Your task to perform on an android device: change text size in settings app Image 0: 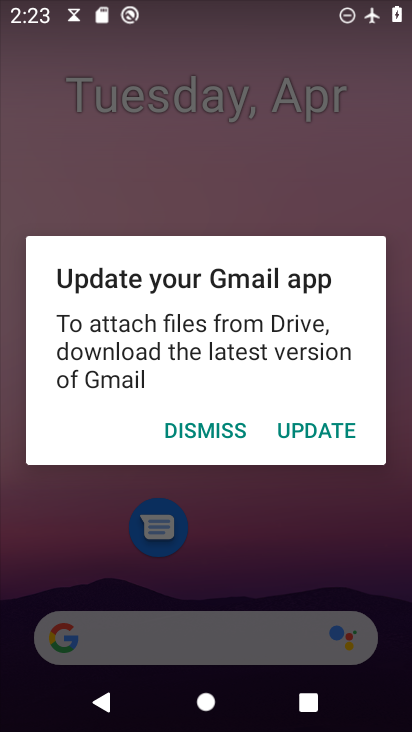
Step 0: press home button
Your task to perform on an android device: change text size in settings app Image 1: 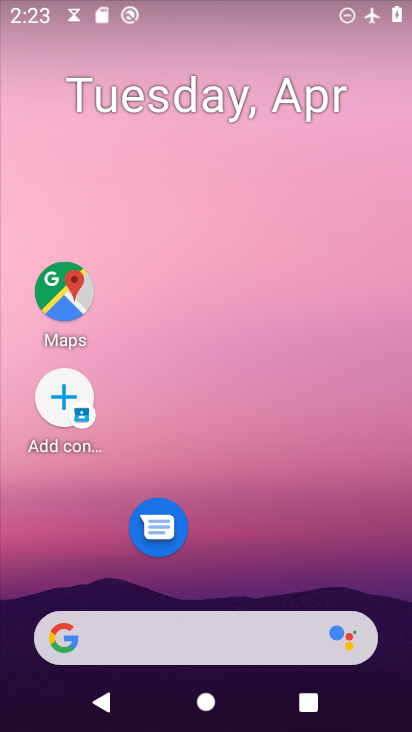
Step 1: drag from (247, 573) to (224, 80)
Your task to perform on an android device: change text size in settings app Image 2: 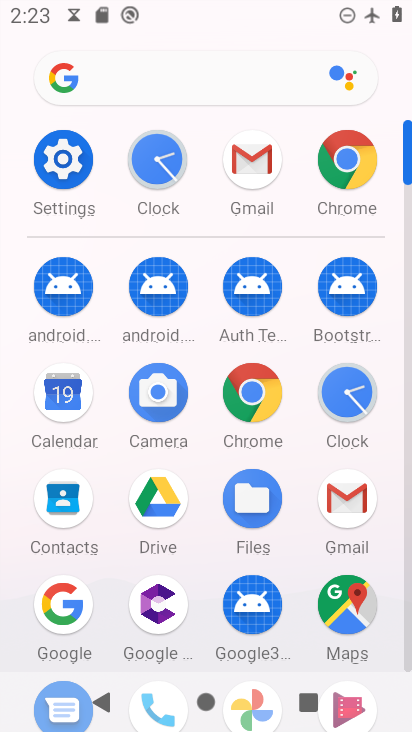
Step 2: click (64, 161)
Your task to perform on an android device: change text size in settings app Image 3: 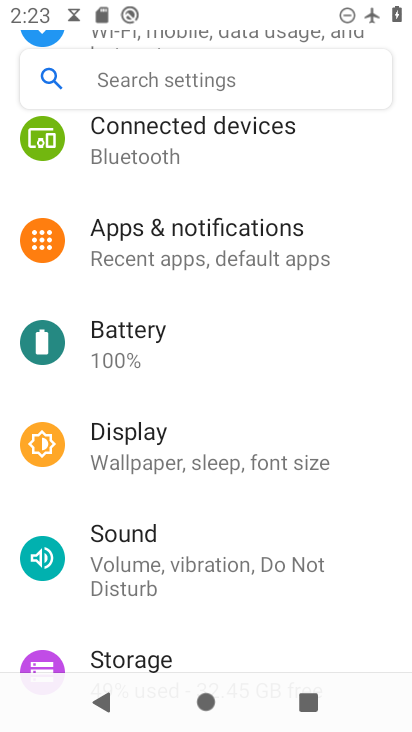
Step 3: drag from (213, 391) to (208, 327)
Your task to perform on an android device: change text size in settings app Image 4: 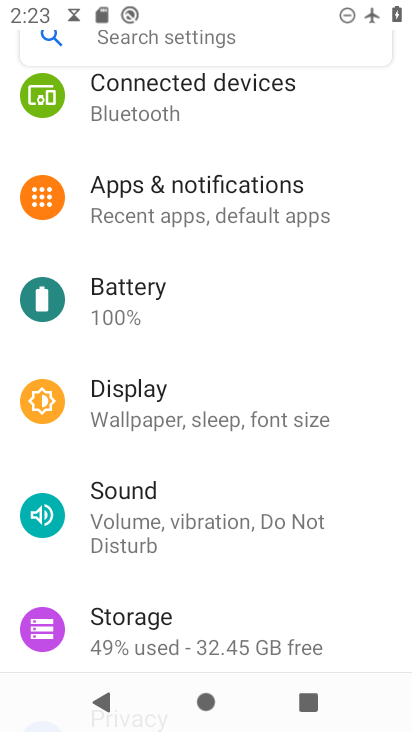
Step 4: drag from (206, 443) to (201, 346)
Your task to perform on an android device: change text size in settings app Image 5: 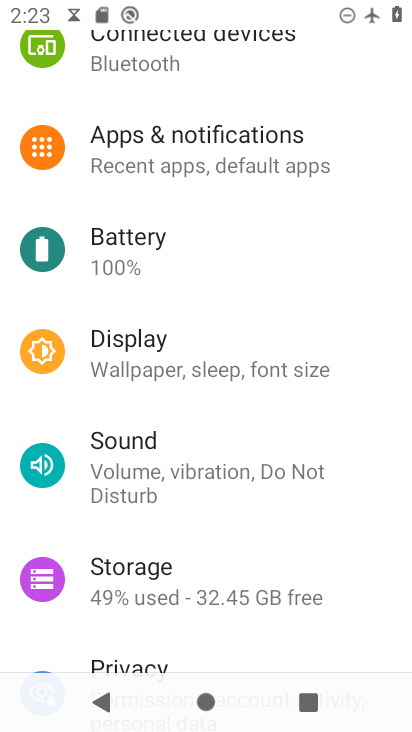
Step 5: drag from (196, 506) to (208, 403)
Your task to perform on an android device: change text size in settings app Image 6: 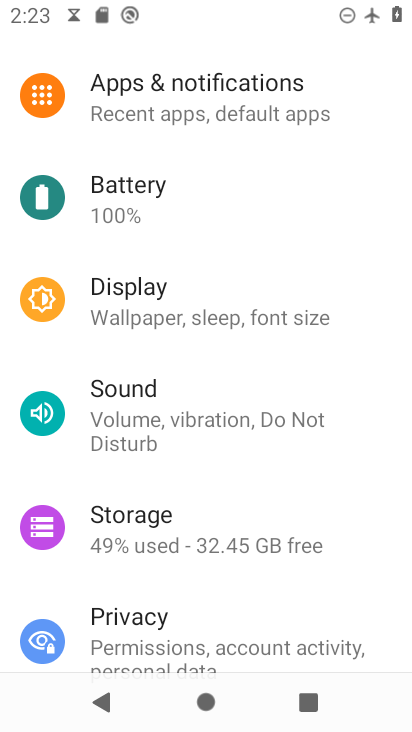
Step 6: drag from (202, 479) to (206, 387)
Your task to perform on an android device: change text size in settings app Image 7: 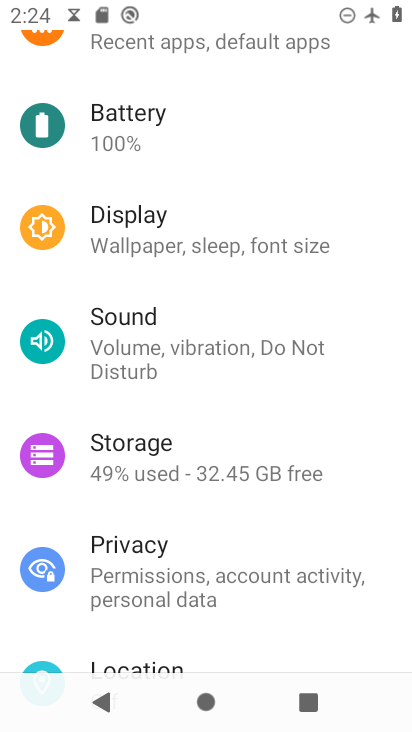
Step 7: drag from (204, 500) to (214, 420)
Your task to perform on an android device: change text size in settings app Image 8: 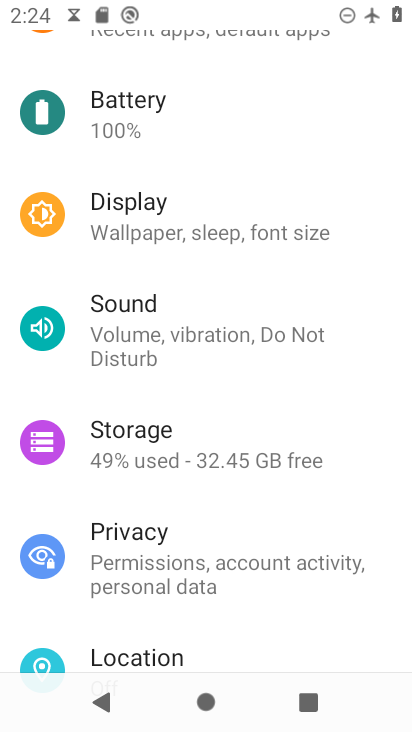
Step 8: drag from (231, 586) to (271, 498)
Your task to perform on an android device: change text size in settings app Image 9: 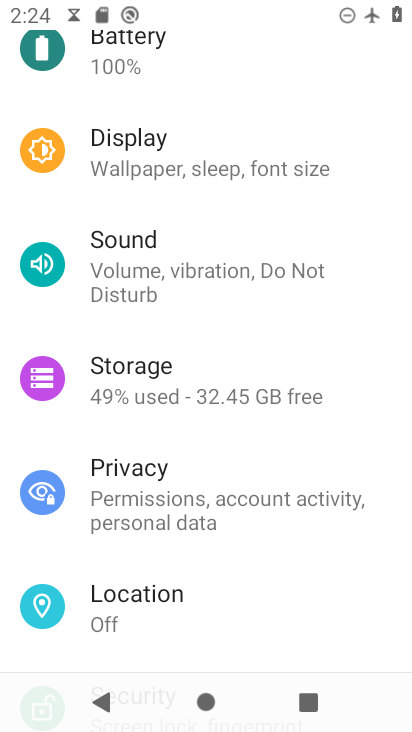
Step 9: drag from (248, 570) to (249, 460)
Your task to perform on an android device: change text size in settings app Image 10: 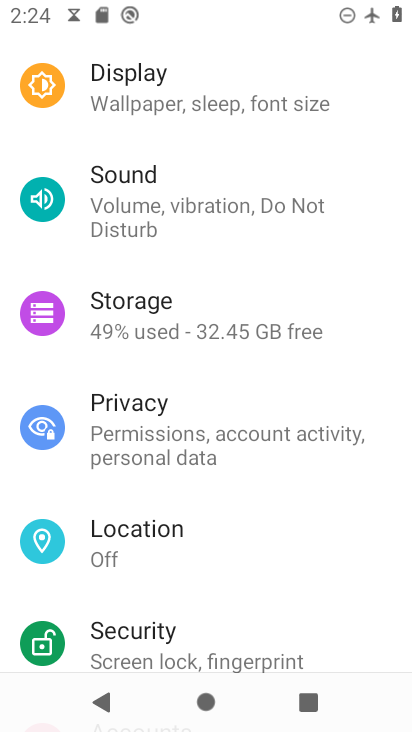
Step 10: drag from (242, 577) to (226, 460)
Your task to perform on an android device: change text size in settings app Image 11: 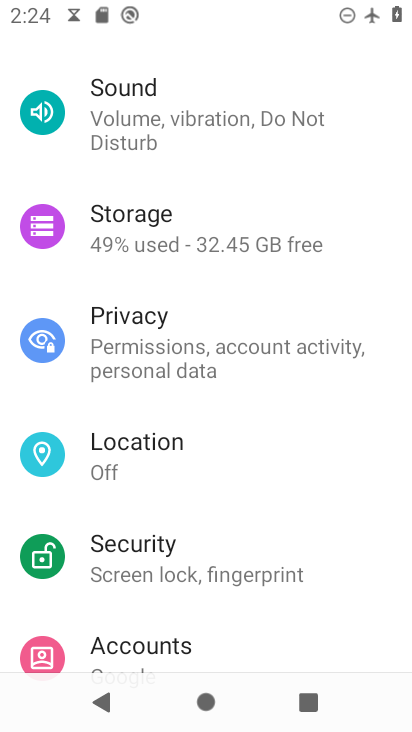
Step 11: drag from (227, 547) to (234, 467)
Your task to perform on an android device: change text size in settings app Image 12: 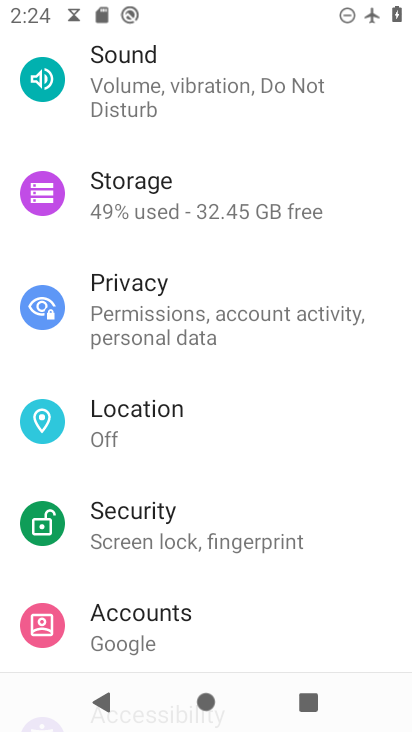
Step 12: drag from (244, 606) to (257, 475)
Your task to perform on an android device: change text size in settings app Image 13: 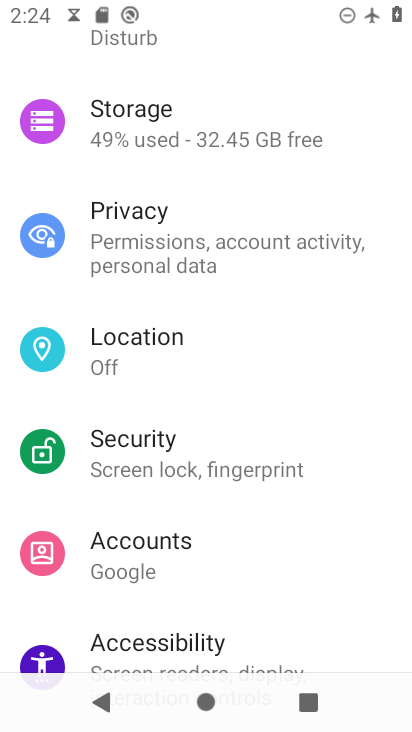
Step 13: drag from (241, 568) to (266, 439)
Your task to perform on an android device: change text size in settings app Image 14: 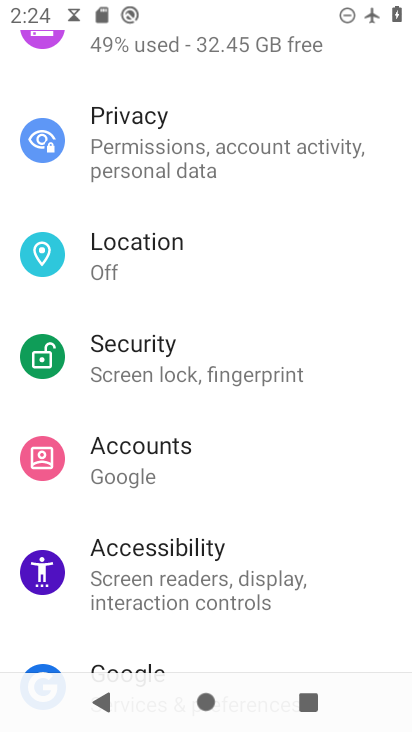
Step 14: drag from (276, 526) to (259, 426)
Your task to perform on an android device: change text size in settings app Image 15: 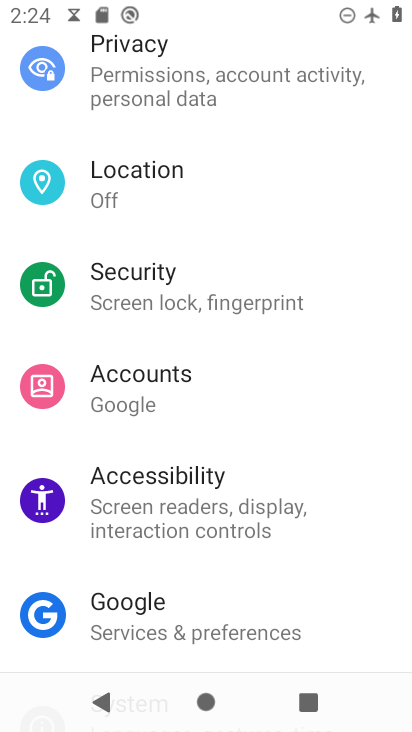
Step 15: click (209, 478)
Your task to perform on an android device: change text size in settings app Image 16: 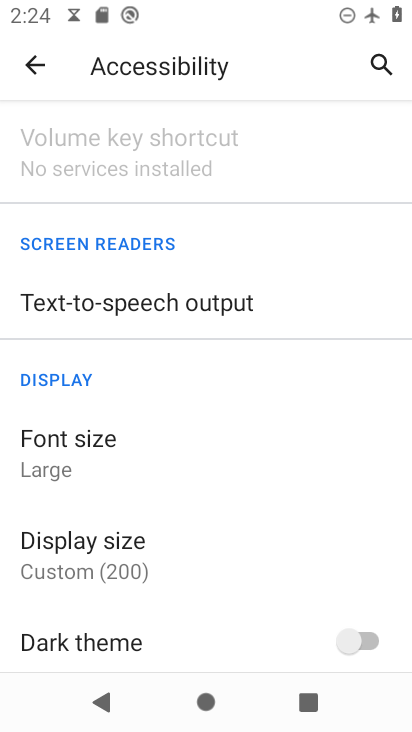
Step 16: click (75, 444)
Your task to perform on an android device: change text size in settings app Image 17: 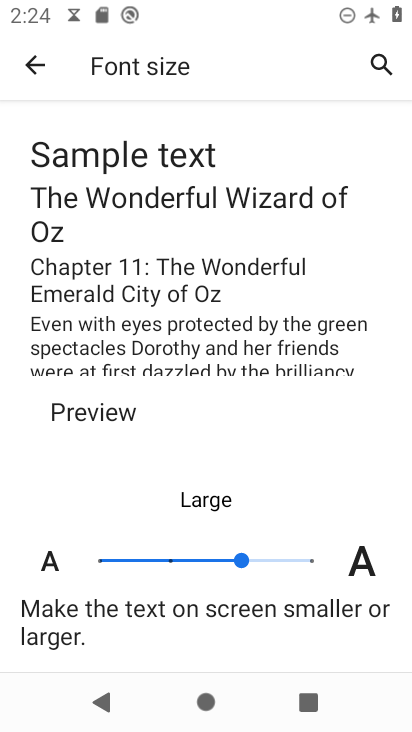
Step 17: click (173, 558)
Your task to perform on an android device: change text size in settings app Image 18: 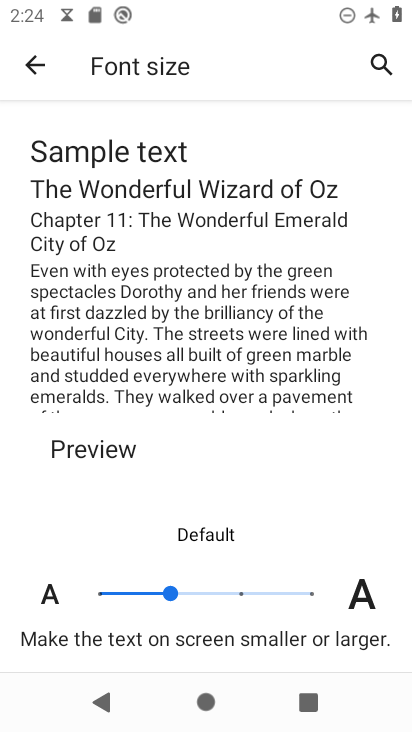
Step 18: task complete